Your task to perform on an android device: add a contact Image 0: 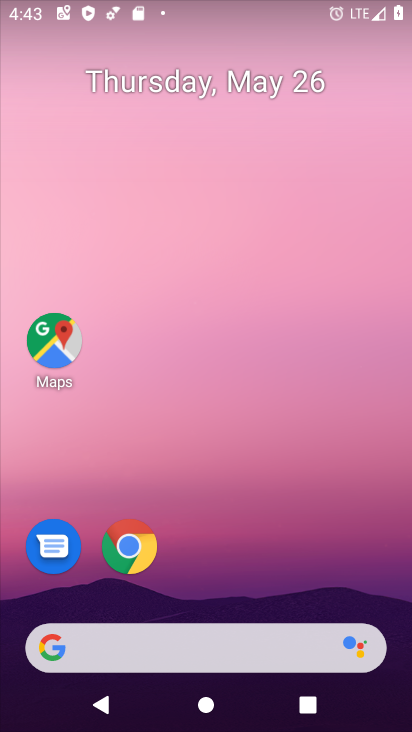
Step 0: drag from (241, 575) to (263, 28)
Your task to perform on an android device: add a contact Image 1: 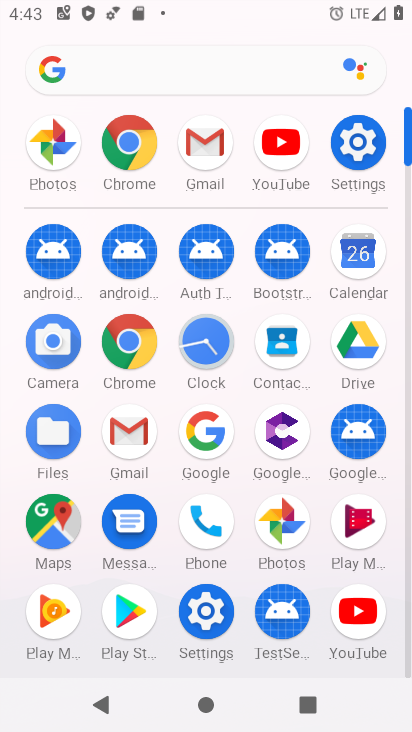
Step 1: click (271, 348)
Your task to perform on an android device: add a contact Image 2: 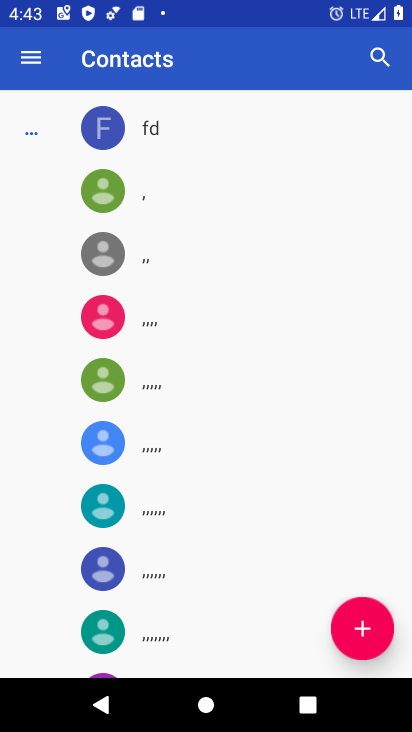
Step 2: click (362, 617)
Your task to perform on an android device: add a contact Image 3: 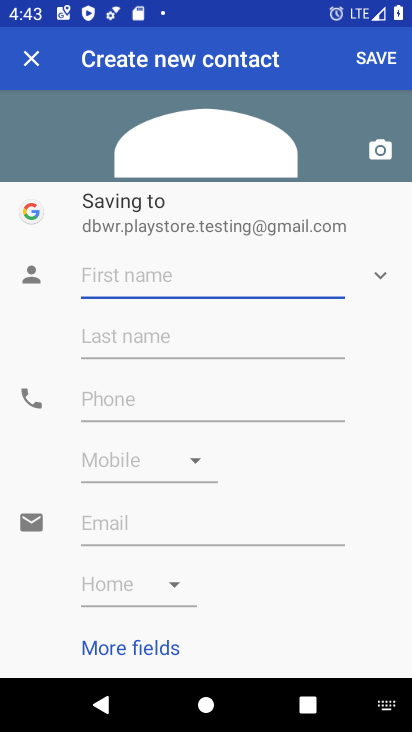
Step 3: click (107, 281)
Your task to perform on an android device: add a contact Image 4: 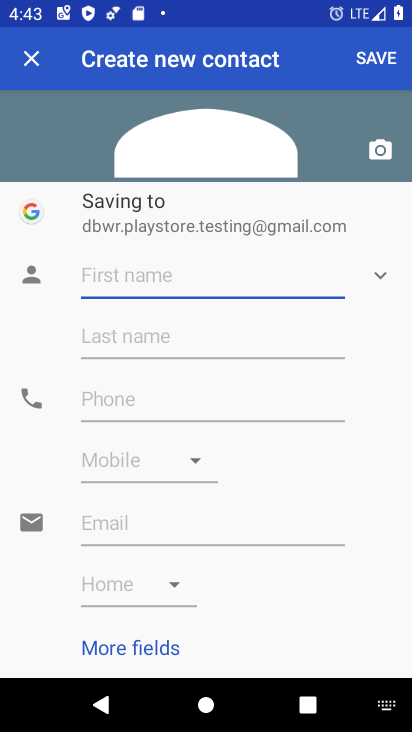
Step 4: type "hnhg"
Your task to perform on an android device: add a contact Image 5: 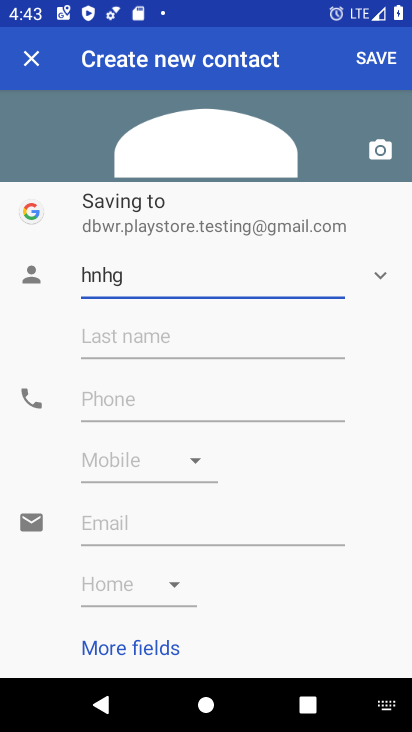
Step 5: click (130, 407)
Your task to perform on an android device: add a contact Image 6: 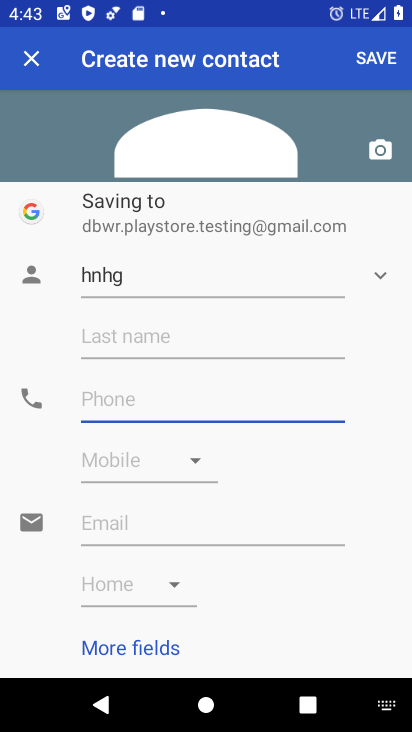
Step 6: type "677675"
Your task to perform on an android device: add a contact Image 7: 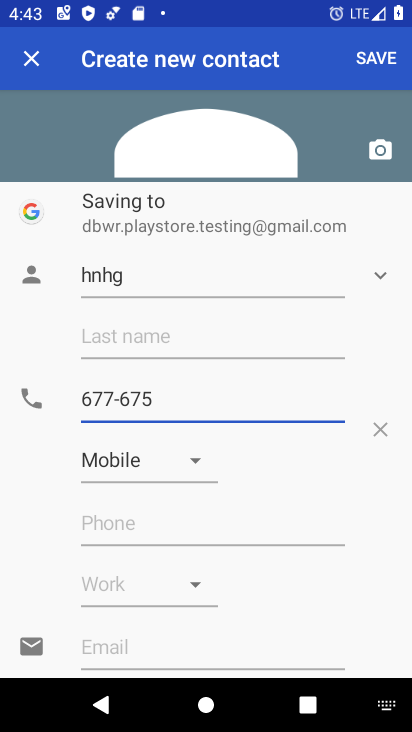
Step 7: click (377, 53)
Your task to perform on an android device: add a contact Image 8: 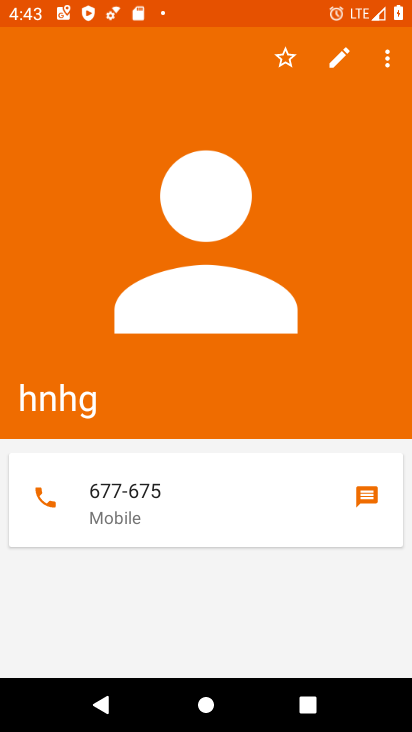
Step 8: task complete